Your task to perform on an android device: toggle airplane mode Image 0: 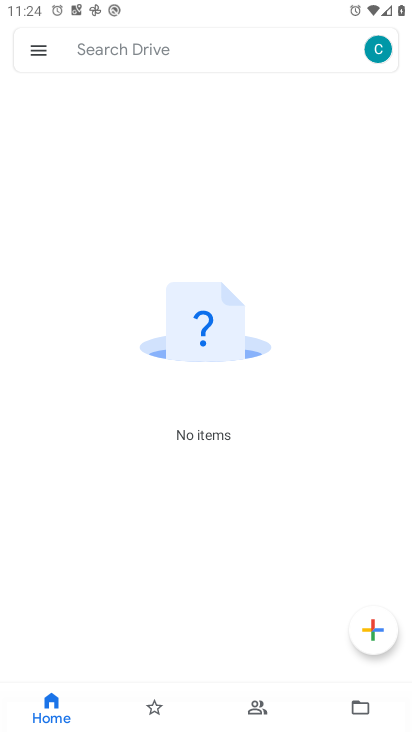
Step 0: press home button
Your task to perform on an android device: toggle airplane mode Image 1: 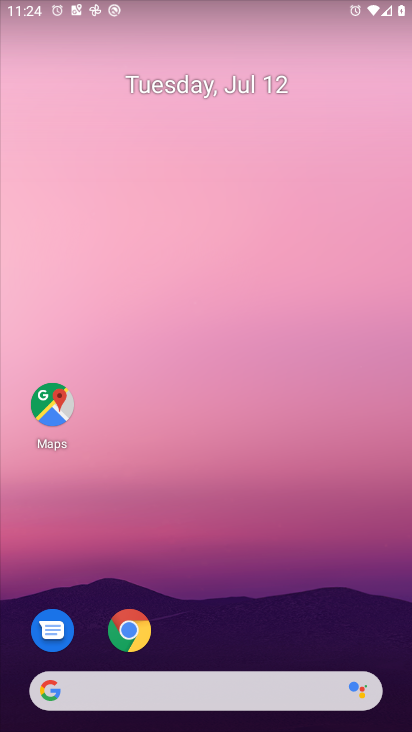
Step 1: drag from (261, 120) to (263, 377)
Your task to perform on an android device: toggle airplane mode Image 2: 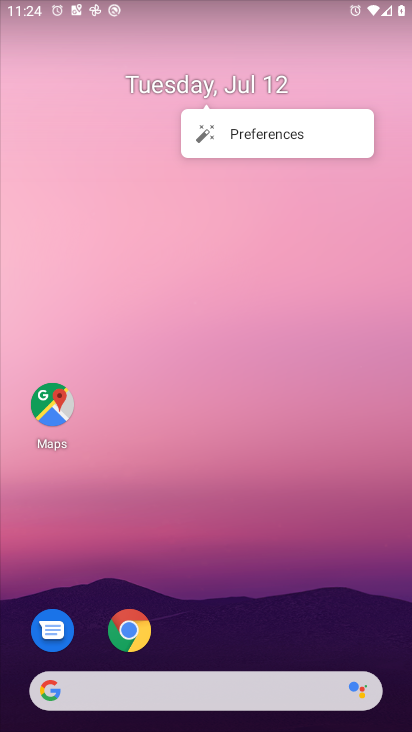
Step 2: drag from (260, 3) to (214, 371)
Your task to perform on an android device: toggle airplane mode Image 3: 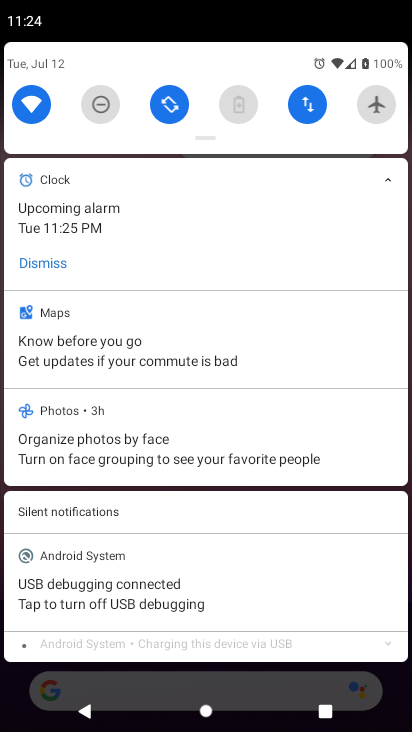
Step 3: click (371, 102)
Your task to perform on an android device: toggle airplane mode Image 4: 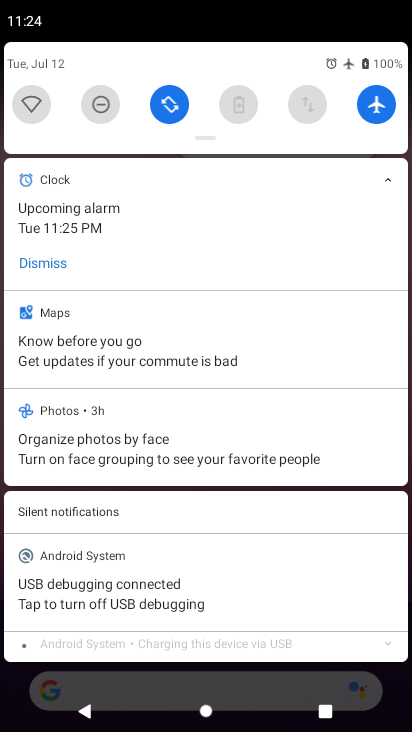
Step 4: task complete